Your task to perform on an android device: Show me productivity apps on the Play Store Image 0: 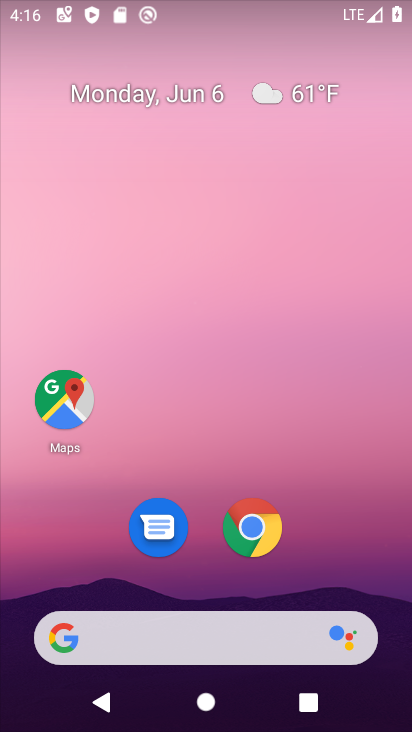
Step 0: drag from (325, 536) to (302, 78)
Your task to perform on an android device: Show me productivity apps on the Play Store Image 1: 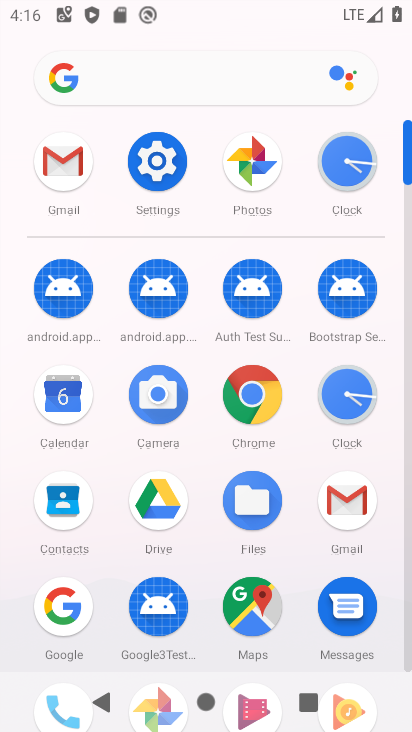
Step 1: click (401, 245)
Your task to perform on an android device: Show me productivity apps on the Play Store Image 2: 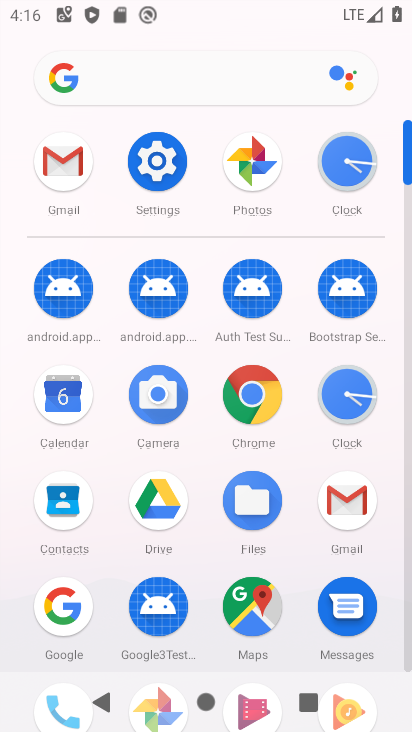
Step 2: click (401, 245)
Your task to perform on an android device: Show me productivity apps on the Play Store Image 3: 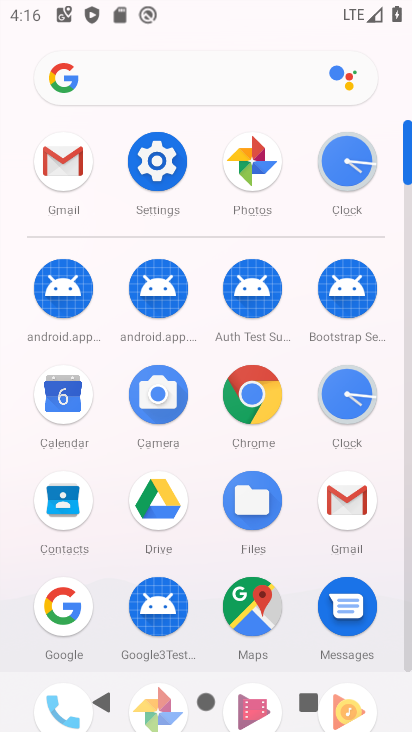
Step 3: click (405, 256)
Your task to perform on an android device: Show me productivity apps on the Play Store Image 4: 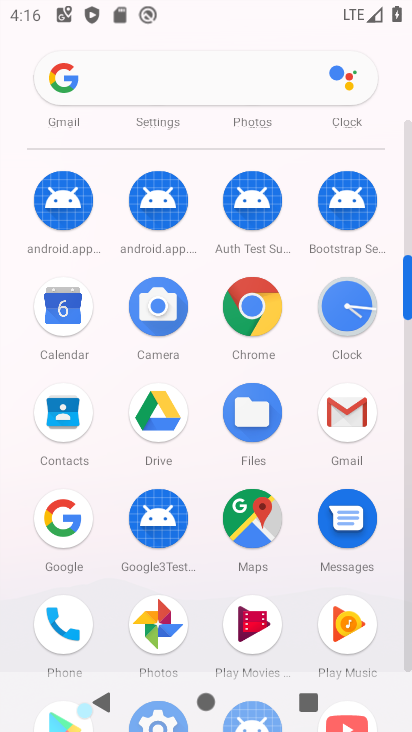
Step 4: click (405, 256)
Your task to perform on an android device: Show me productivity apps on the Play Store Image 5: 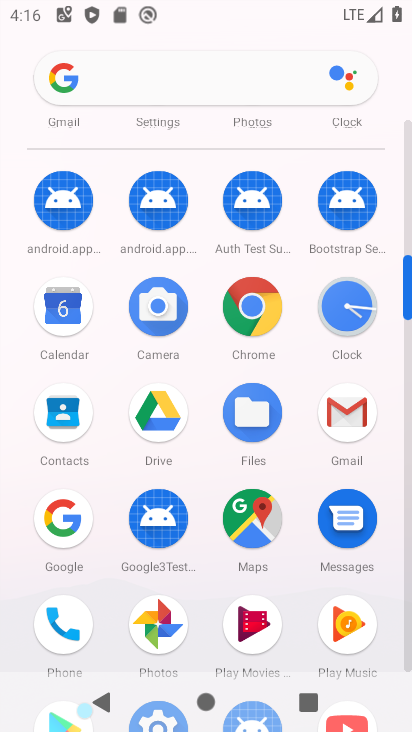
Step 5: click (405, 256)
Your task to perform on an android device: Show me productivity apps on the Play Store Image 6: 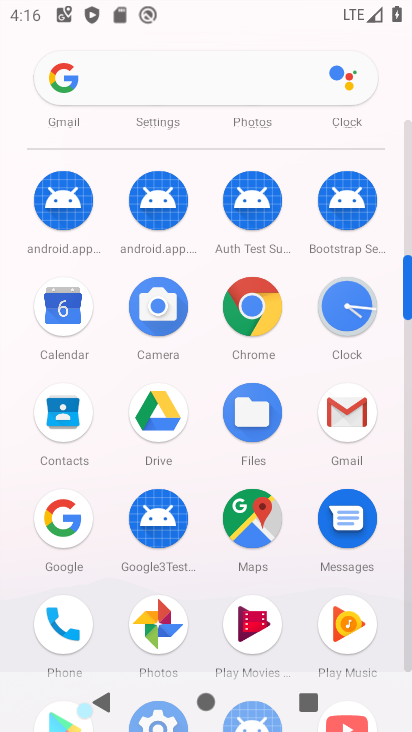
Step 6: click (410, 375)
Your task to perform on an android device: Show me productivity apps on the Play Store Image 7: 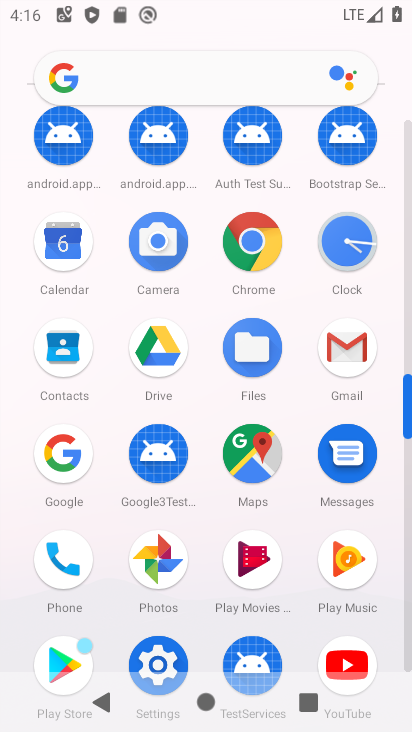
Step 7: click (402, 467)
Your task to perform on an android device: Show me productivity apps on the Play Store Image 8: 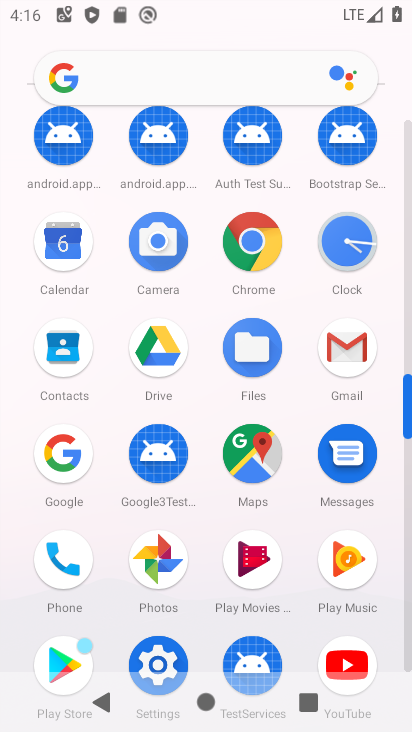
Step 8: click (406, 480)
Your task to perform on an android device: Show me productivity apps on the Play Store Image 9: 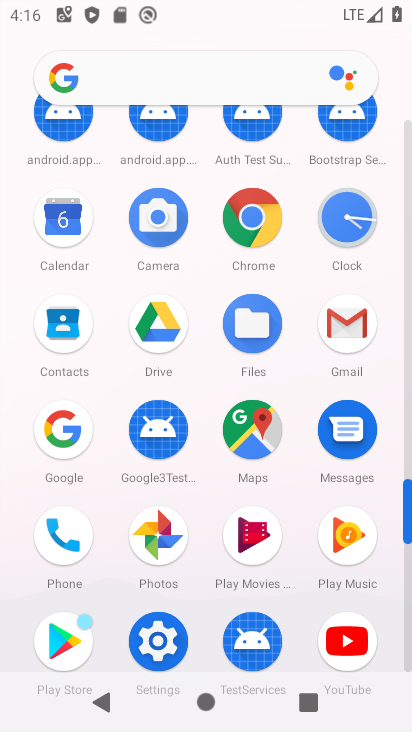
Step 9: click (56, 636)
Your task to perform on an android device: Show me productivity apps on the Play Store Image 10: 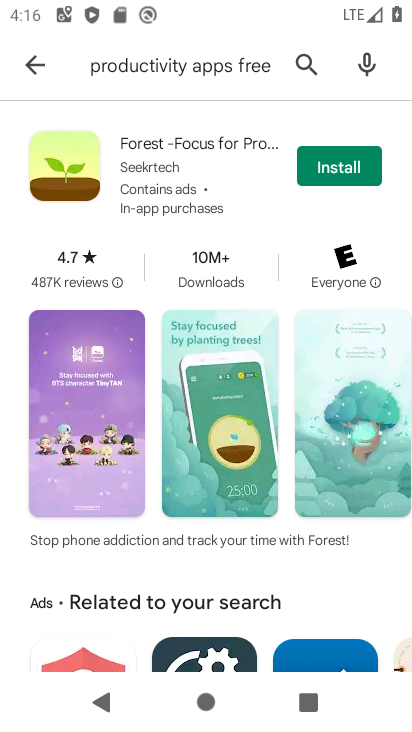
Step 10: task complete